Your task to perform on an android device: Go to sound settings Image 0: 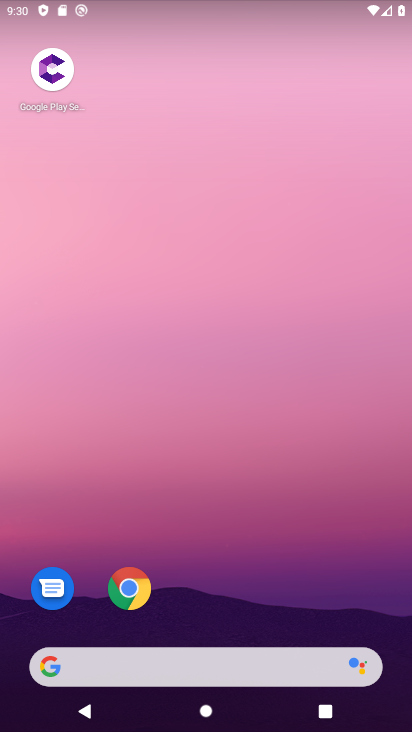
Step 0: drag from (231, 525) to (166, 81)
Your task to perform on an android device: Go to sound settings Image 1: 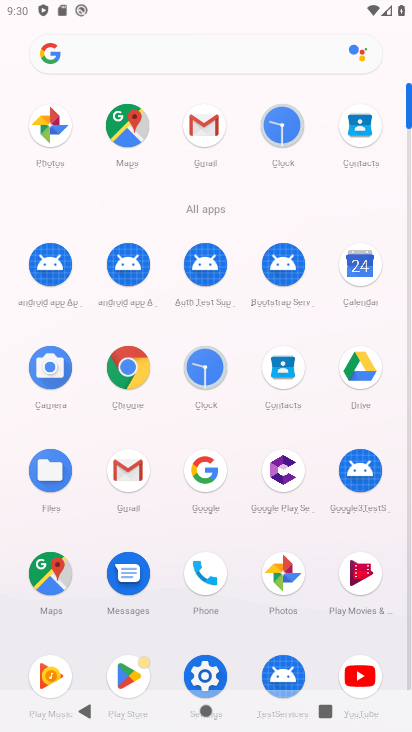
Step 1: click (197, 680)
Your task to perform on an android device: Go to sound settings Image 2: 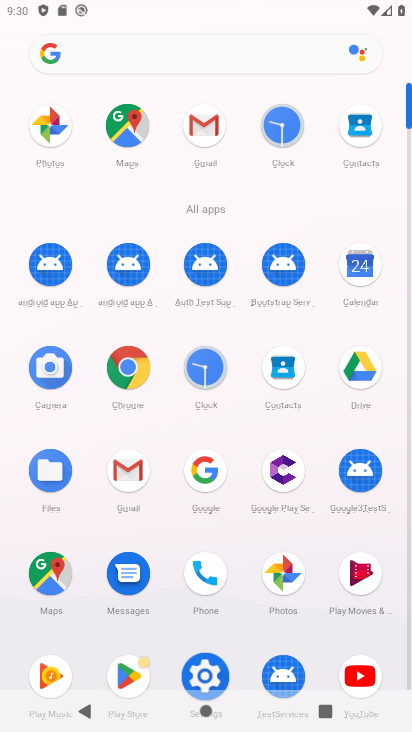
Step 2: click (201, 673)
Your task to perform on an android device: Go to sound settings Image 3: 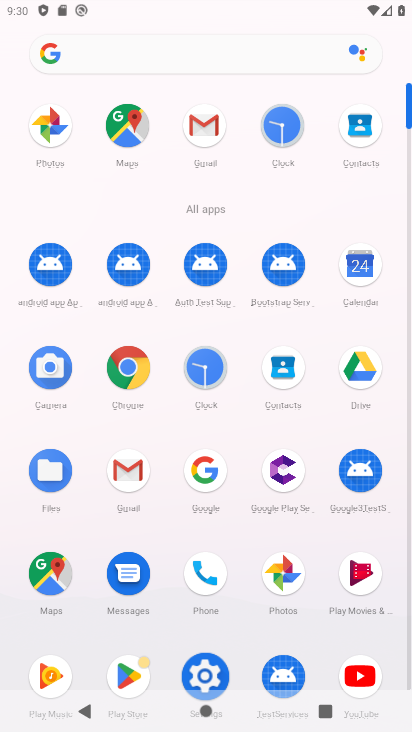
Step 3: click (203, 669)
Your task to perform on an android device: Go to sound settings Image 4: 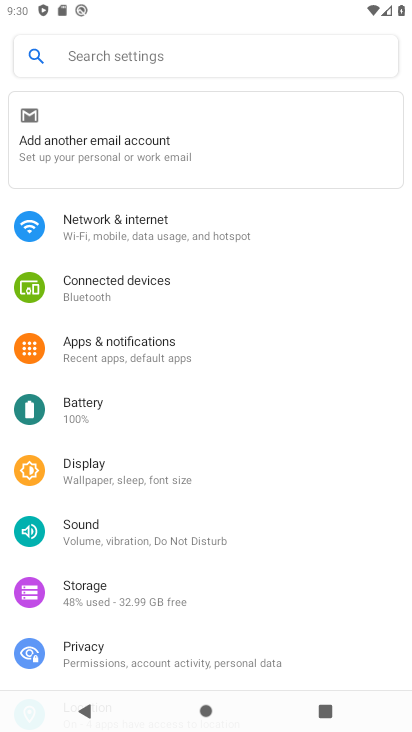
Step 4: click (100, 541)
Your task to perform on an android device: Go to sound settings Image 5: 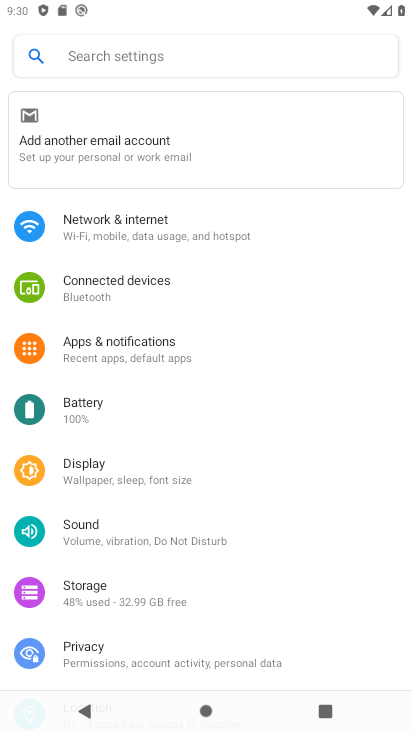
Step 5: click (105, 537)
Your task to perform on an android device: Go to sound settings Image 6: 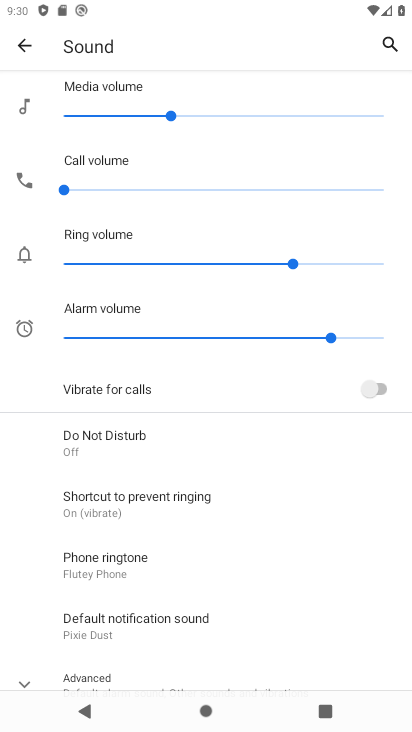
Step 6: task complete